Your task to perform on an android device: Go to battery settings Image 0: 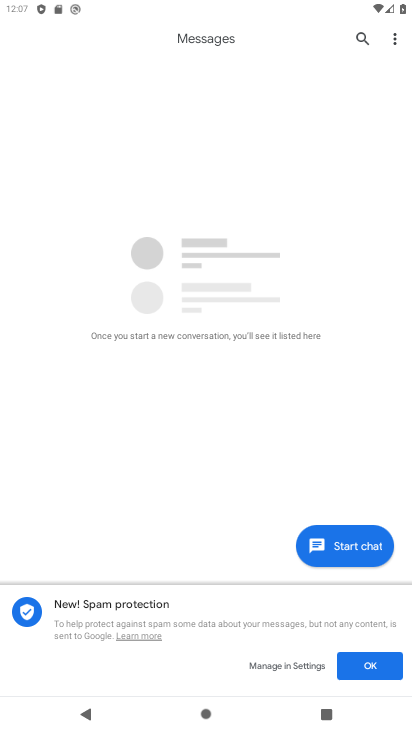
Step 0: drag from (301, 12) to (385, 729)
Your task to perform on an android device: Go to battery settings Image 1: 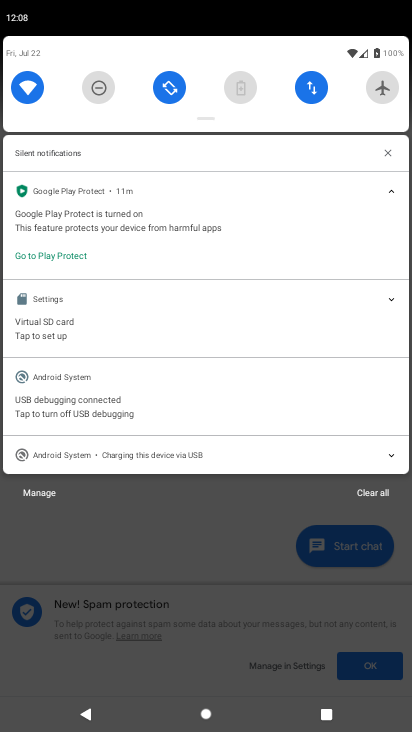
Step 1: click (242, 71)
Your task to perform on an android device: Go to battery settings Image 2: 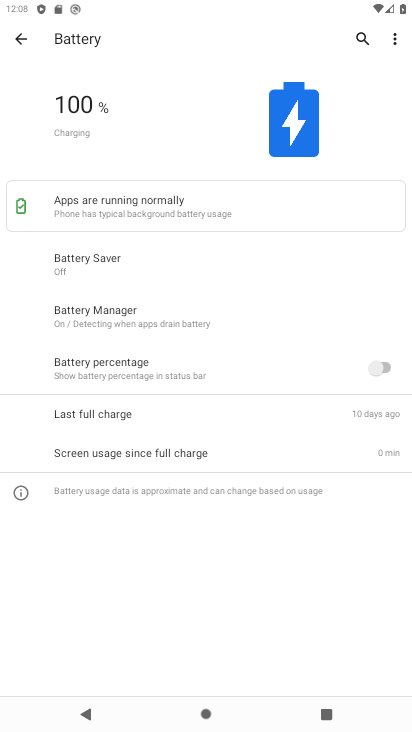
Step 2: task complete